Your task to perform on an android device: Clear all items from cart on costco.com. Search for "usb-b" on costco.com, select the first entry, and add it to the cart. Image 0: 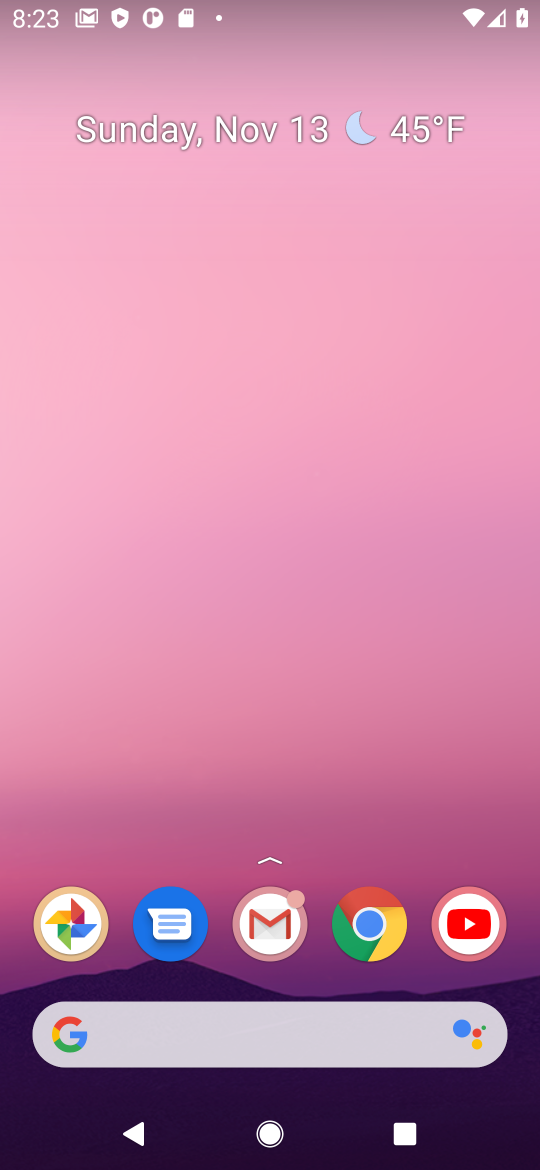
Step 0: click (381, 927)
Your task to perform on an android device: Clear all items from cart on costco.com. Search for "usb-b" on costco.com, select the first entry, and add it to the cart. Image 1: 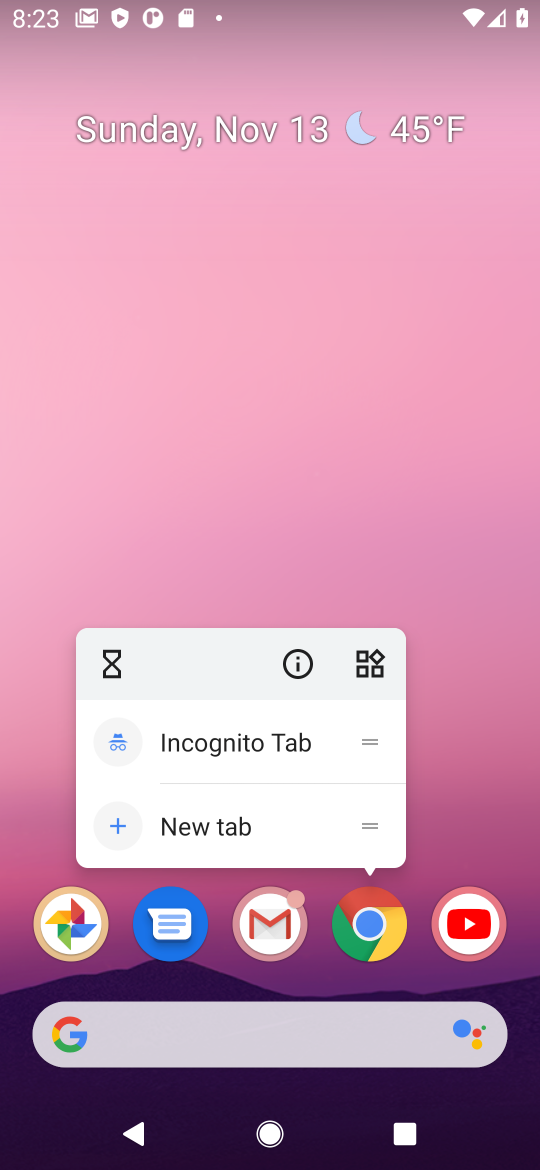
Step 1: click (364, 925)
Your task to perform on an android device: Clear all items from cart on costco.com. Search for "usb-b" on costco.com, select the first entry, and add it to the cart. Image 2: 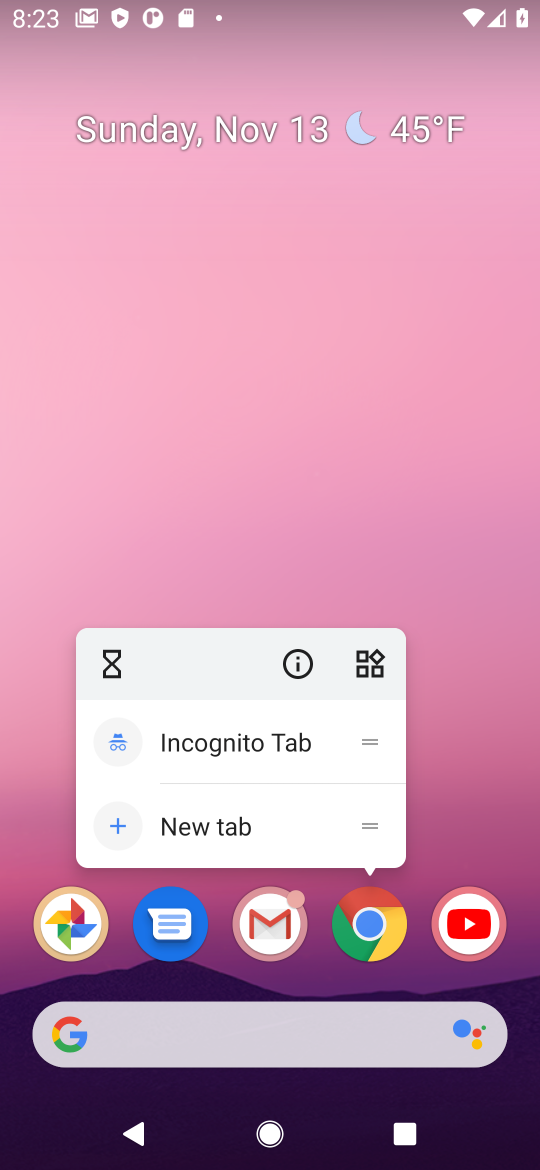
Step 2: click (364, 930)
Your task to perform on an android device: Clear all items from cart on costco.com. Search for "usb-b" on costco.com, select the first entry, and add it to the cart. Image 3: 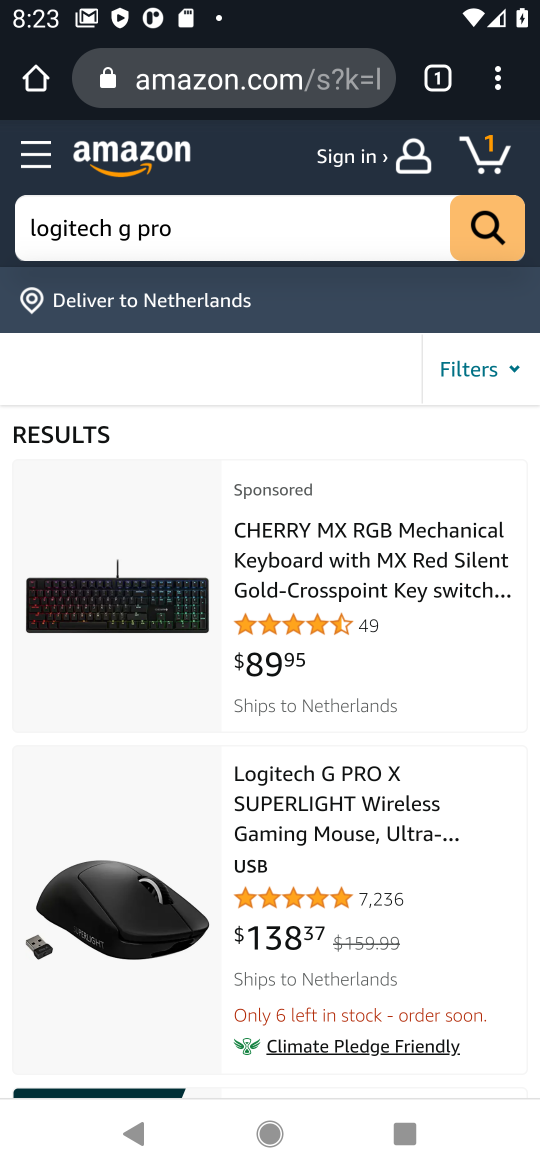
Step 3: click (277, 83)
Your task to perform on an android device: Clear all items from cart on costco.com. Search for "usb-b" on costco.com, select the first entry, and add it to the cart. Image 4: 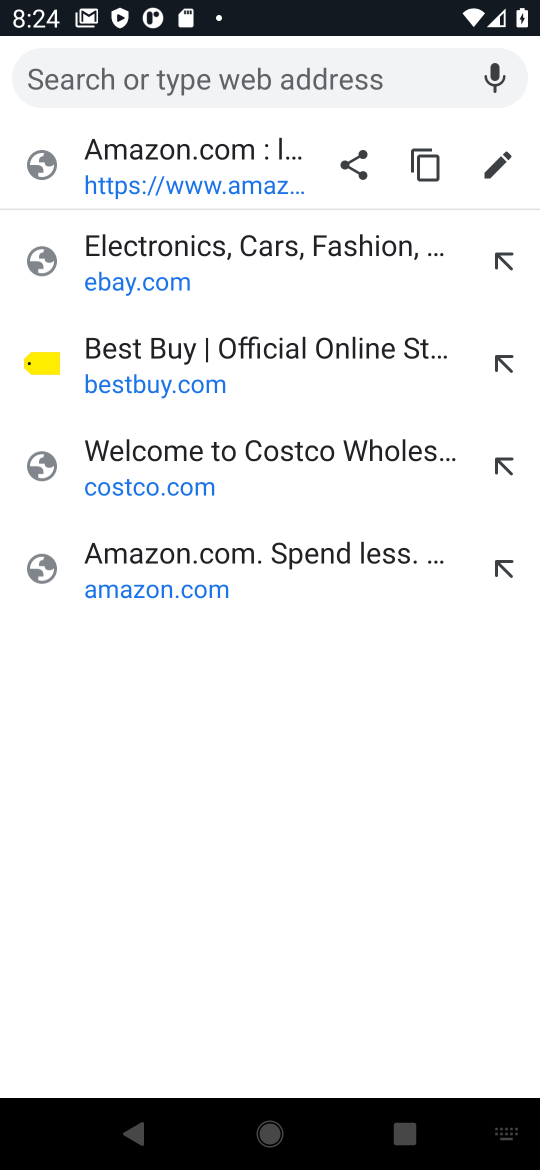
Step 4: type "costco.com"
Your task to perform on an android device: Clear all items from cart on costco.com. Search for "usb-b" on costco.com, select the first entry, and add it to the cart. Image 5: 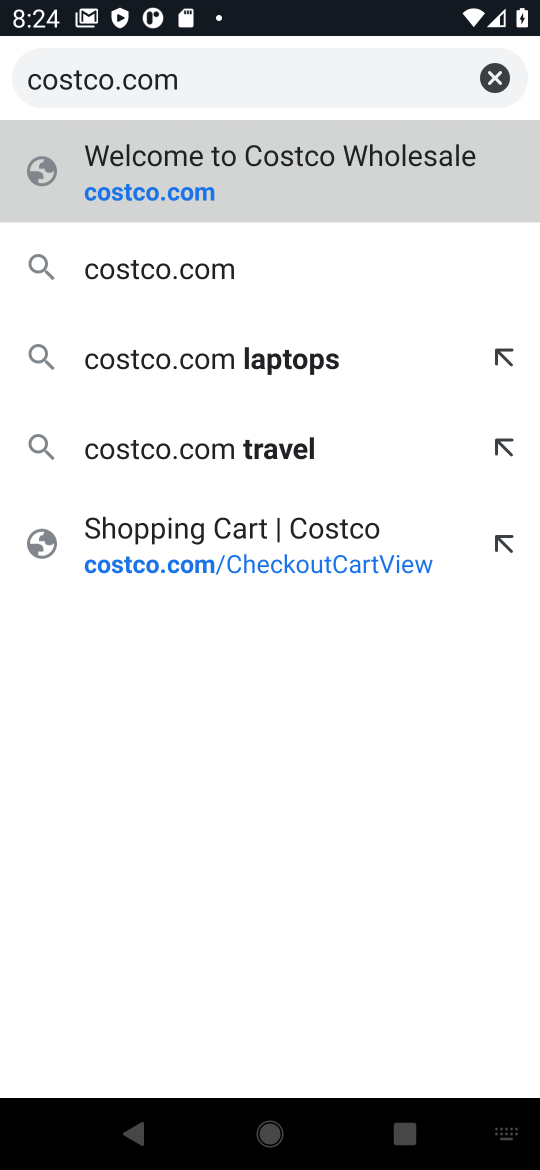
Step 5: press enter
Your task to perform on an android device: Clear all items from cart on costco.com. Search for "usb-b" on costco.com, select the first entry, and add it to the cart. Image 6: 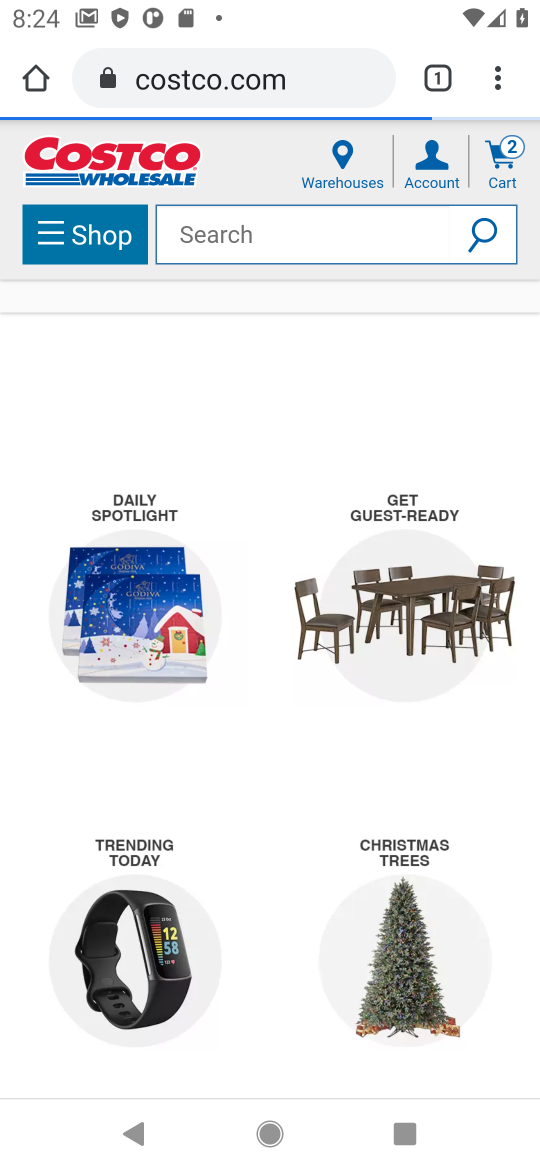
Step 6: click (508, 151)
Your task to perform on an android device: Clear all items from cart on costco.com. Search for "usb-b" on costco.com, select the first entry, and add it to the cart. Image 7: 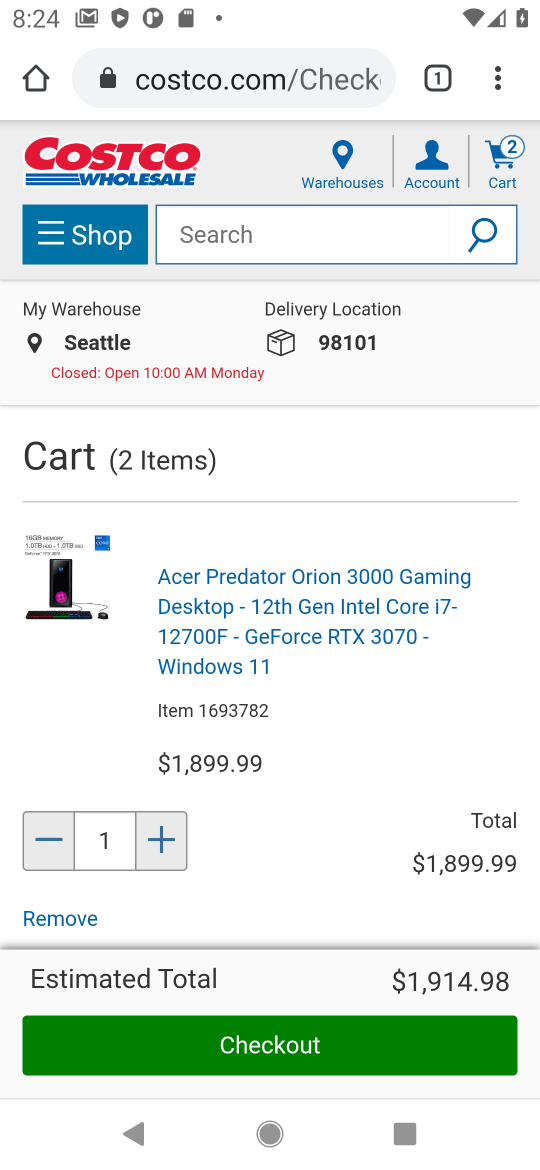
Step 7: drag from (242, 925) to (436, 338)
Your task to perform on an android device: Clear all items from cart on costco.com. Search for "usb-b" on costco.com, select the first entry, and add it to the cart. Image 8: 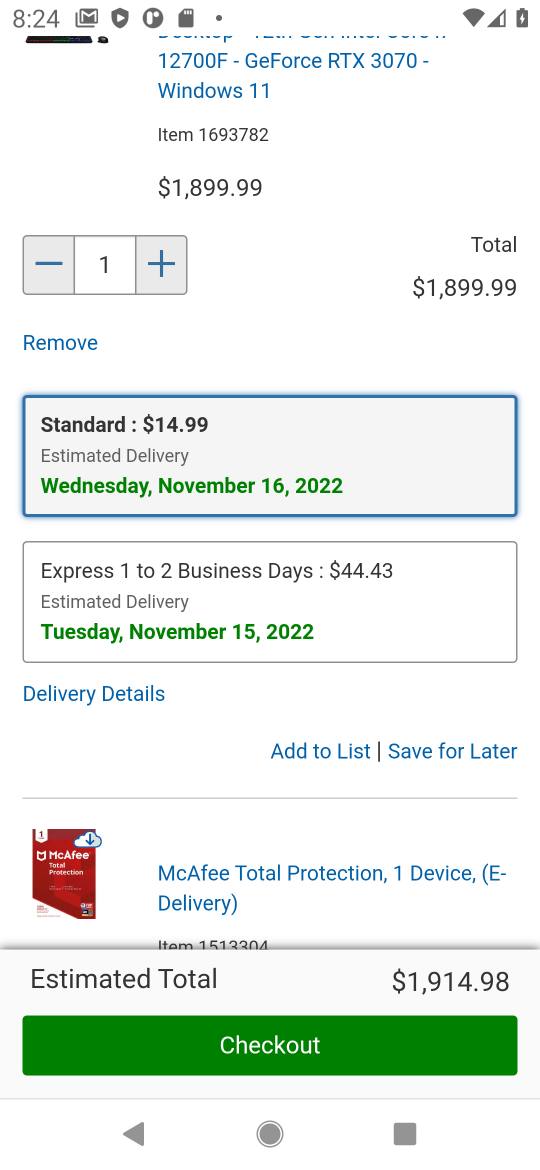
Step 8: click (455, 746)
Your task to perform on an android device: Clear all items from cart on costco.com. Search for "usb-b" on costco.com, select the first entry, and add it to the cart. Image 9: 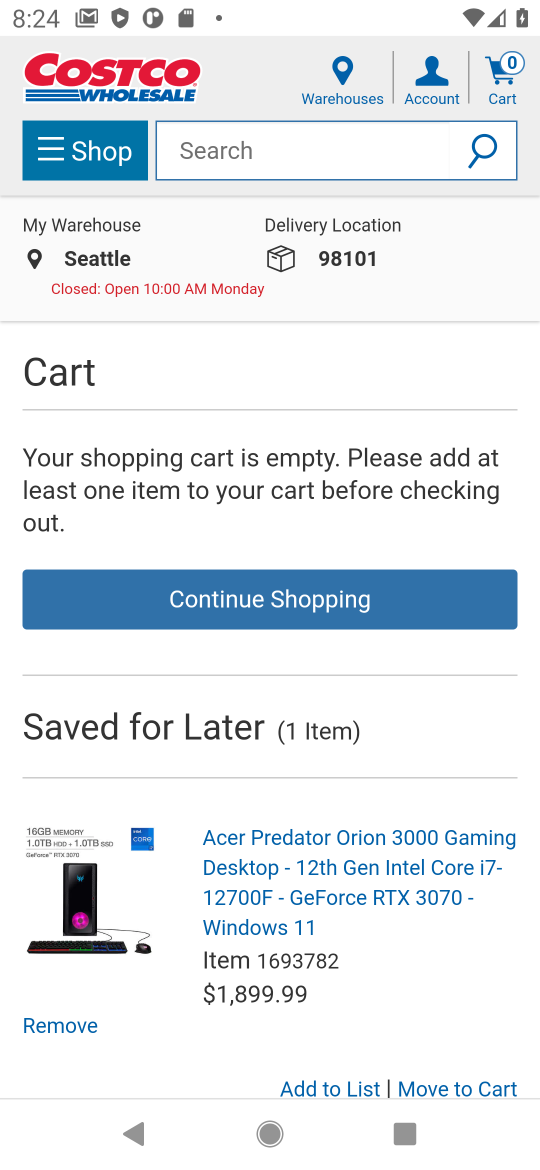
Step 9: click (225, 136)
Your task to perform on an android device: Clear all items from cart on costco.com. Search for "usb-b" on costco.com, select the first entry, and add it to the cart. Image 10: 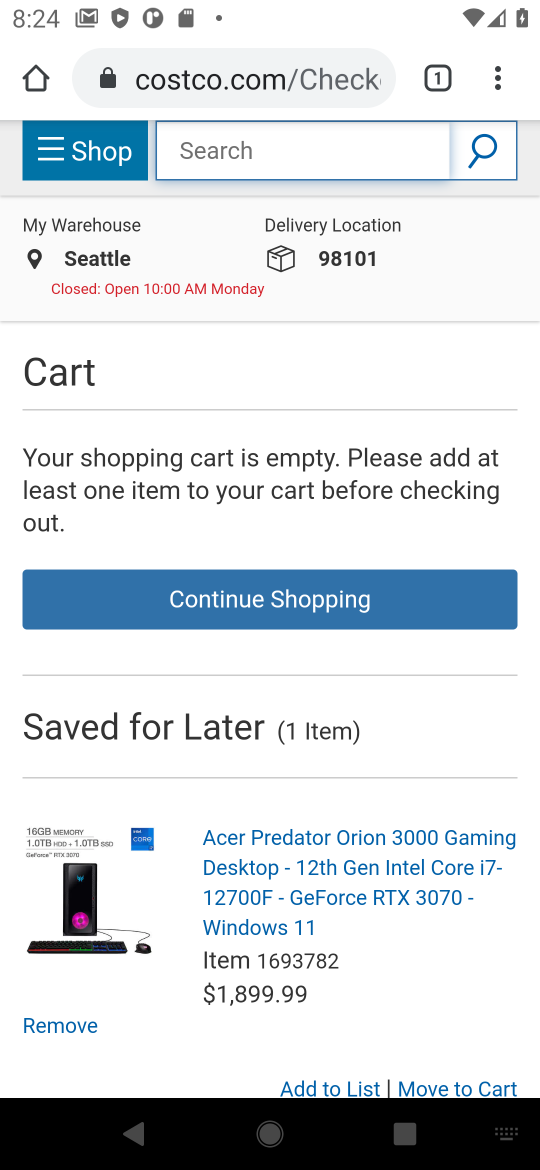
Step 10: type "usb-b"
Your task to perform on an android device: Clear all items from cart on costco.com. Search for "usb-b" on costco.com, select the first entry, and add it to the cart. Image 11: 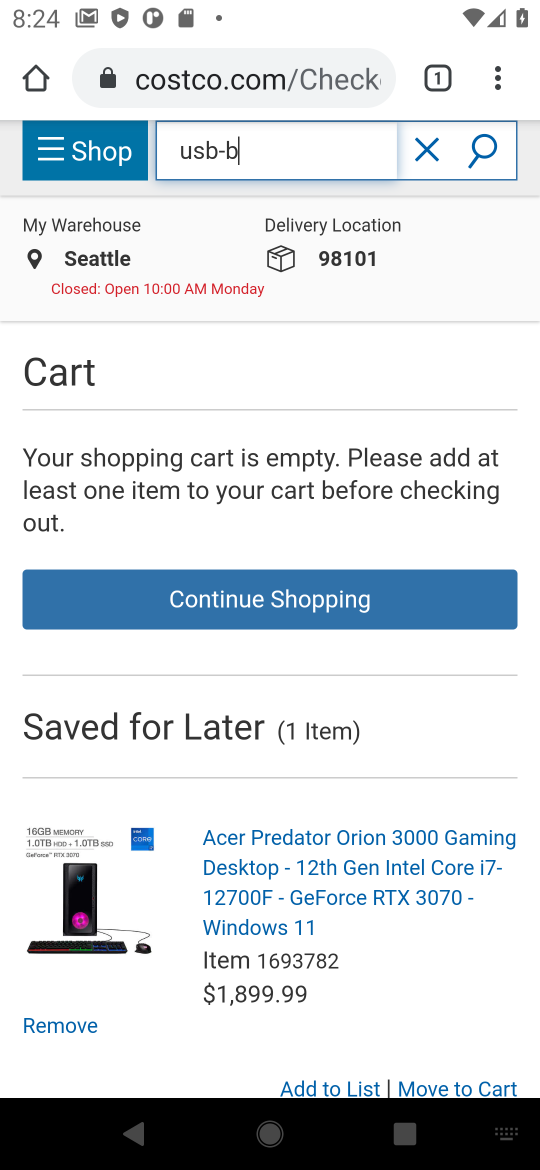
Step 11: press enter
Your task to perform on an android device: Clear all items from cart on costco.com. Search for "usb-b" on costco.com, select the first entry, and add it to the cart. Image 12: 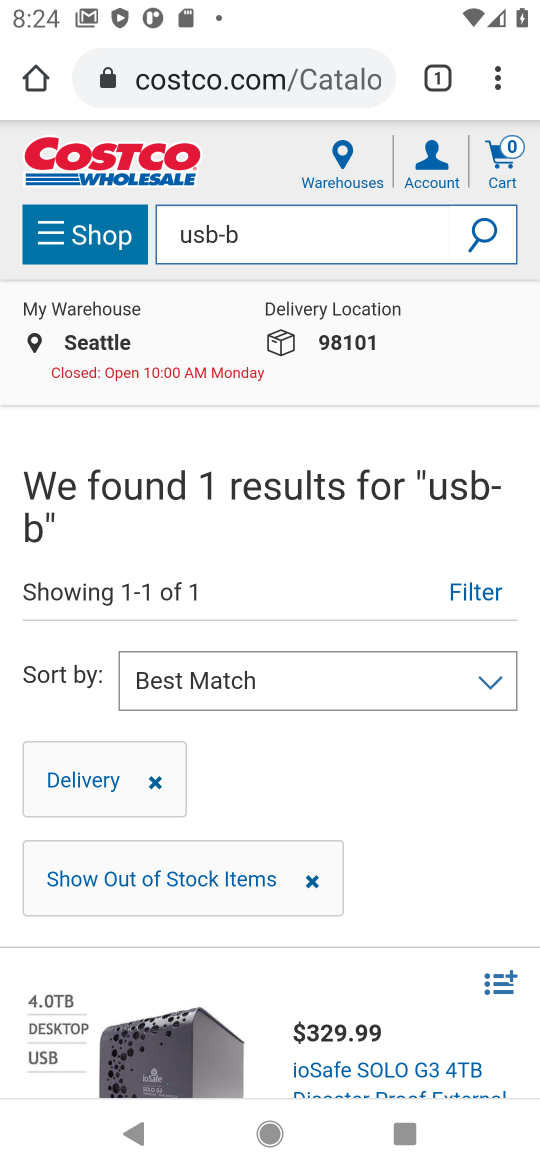
Step 12: task complete